Your task to perform on an android device: show emergency info Image 0: 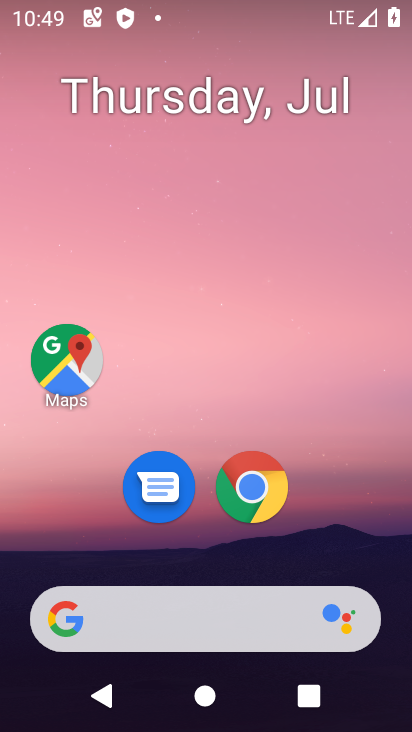
Step 0: drag from (201, 559) to (270, 12)
Your task to perform on an android device: show emergency info Image 1: 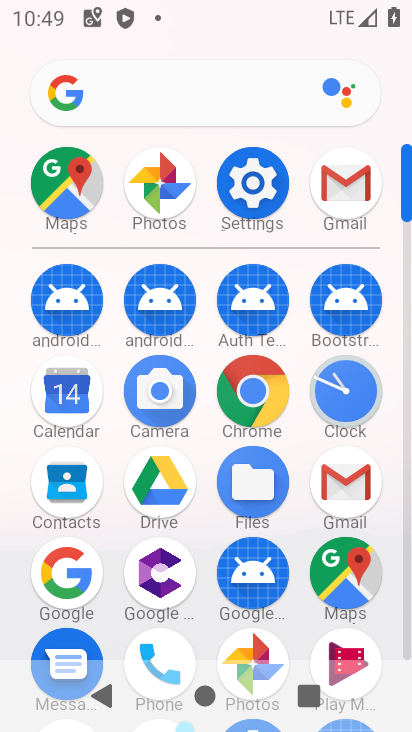
Step 1: click (250, 186)
Your task to perform on an android device: show emergency info Image 2: 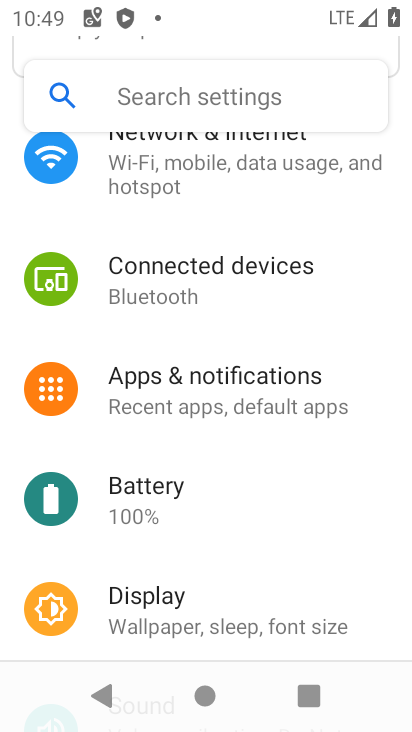
Step 2: drag from (184, 626) to (336, 37)
Your task to perform on an android device: show emergency info Image 3: 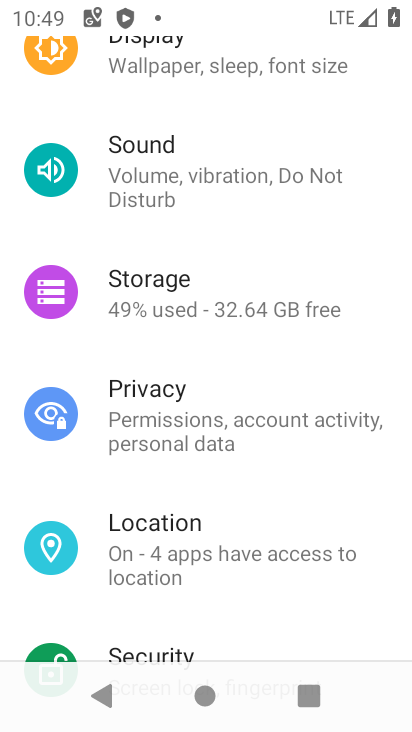
Step 3: drag from (221, 569) to (324, 20)
Your task to perform on an android device: show emergency info Image 4: 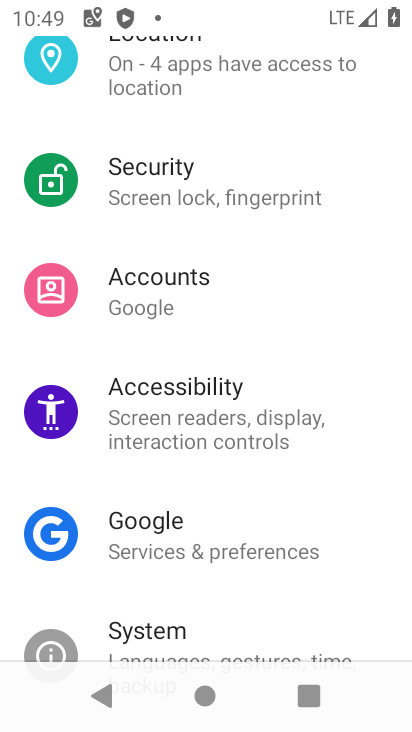
Step 4: drag from (118, 592) to (223, 210)
Your task to perform on an android device: show emergency info Image 5: 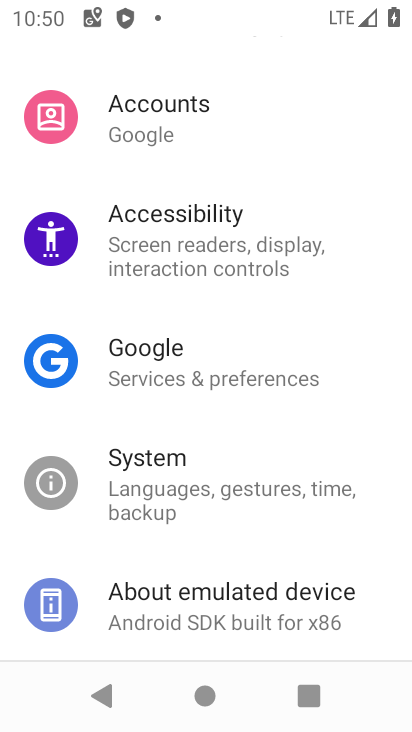
Step 5: click (212, 598)
Your task to perform on an android device: show emergency info Image 6: 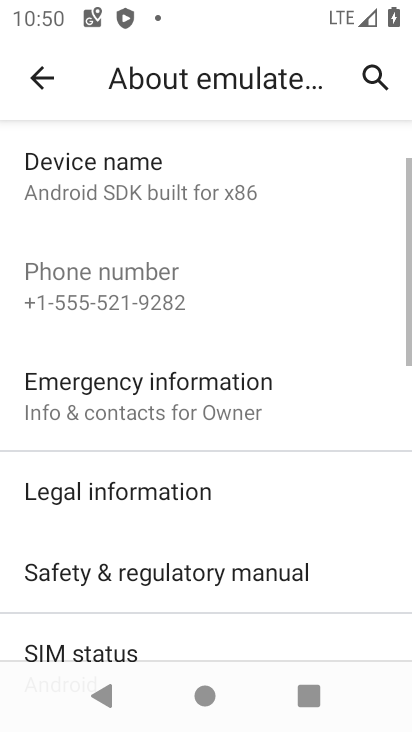
Step 6: click (114, 392)
Your task to perform on an android device: show emergency info Image 7: 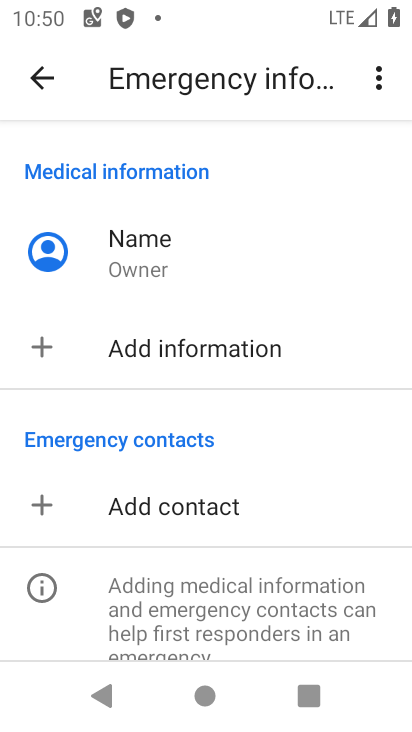
Step 7: task complete